Your task to perform on an android device: What is the recent news? Image 0: 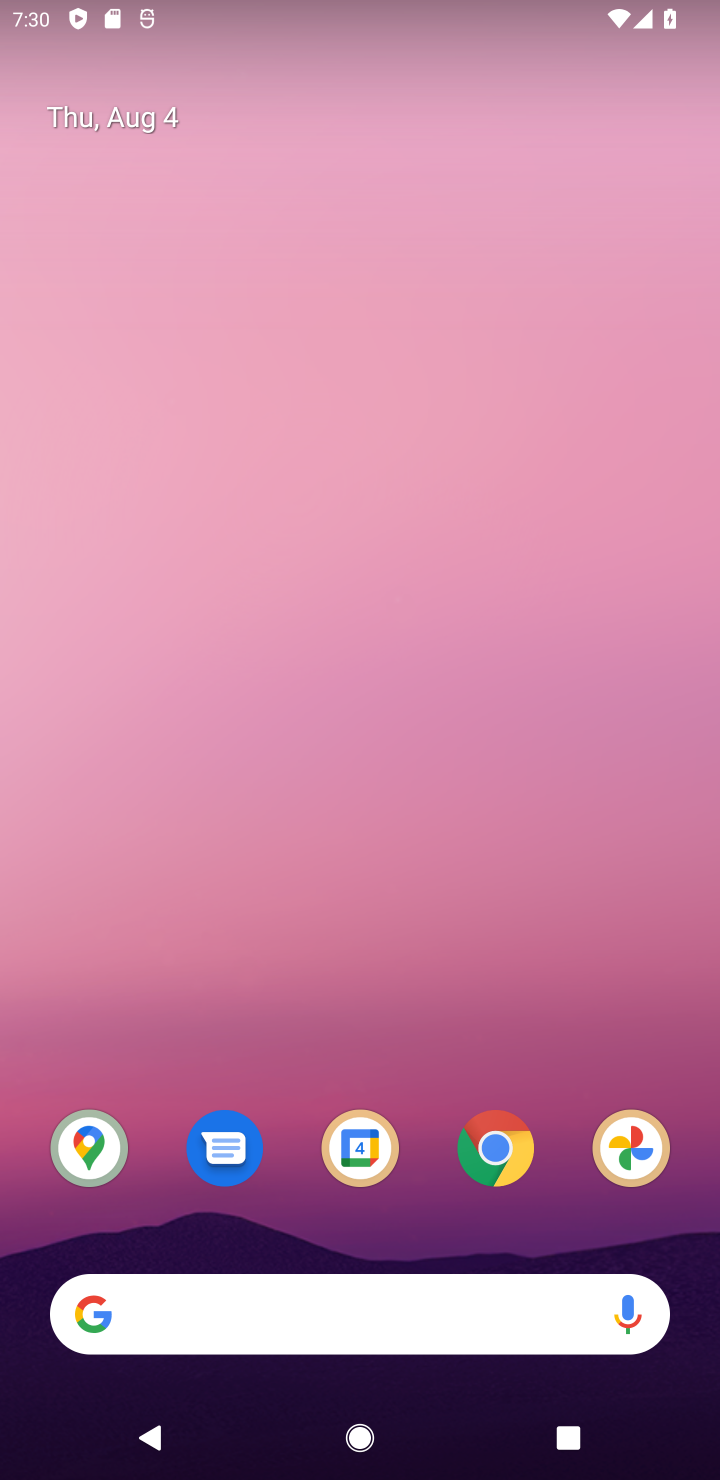
Step 0: click (498, 1128)
Your task to perform on an android device: What is the recent news? Image 1: 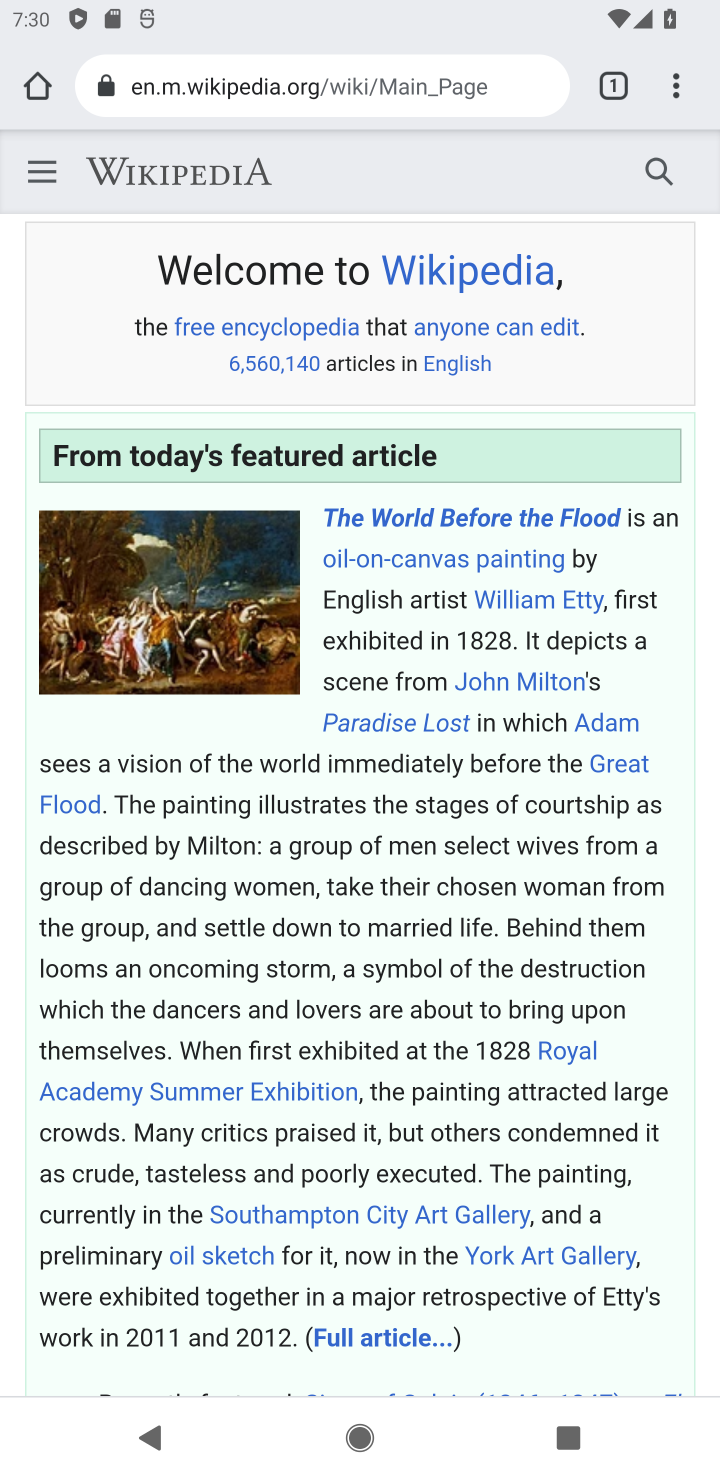
Step 1: click (434, 65)
Your task to perform on an android device: What is the recent news? Image 2: 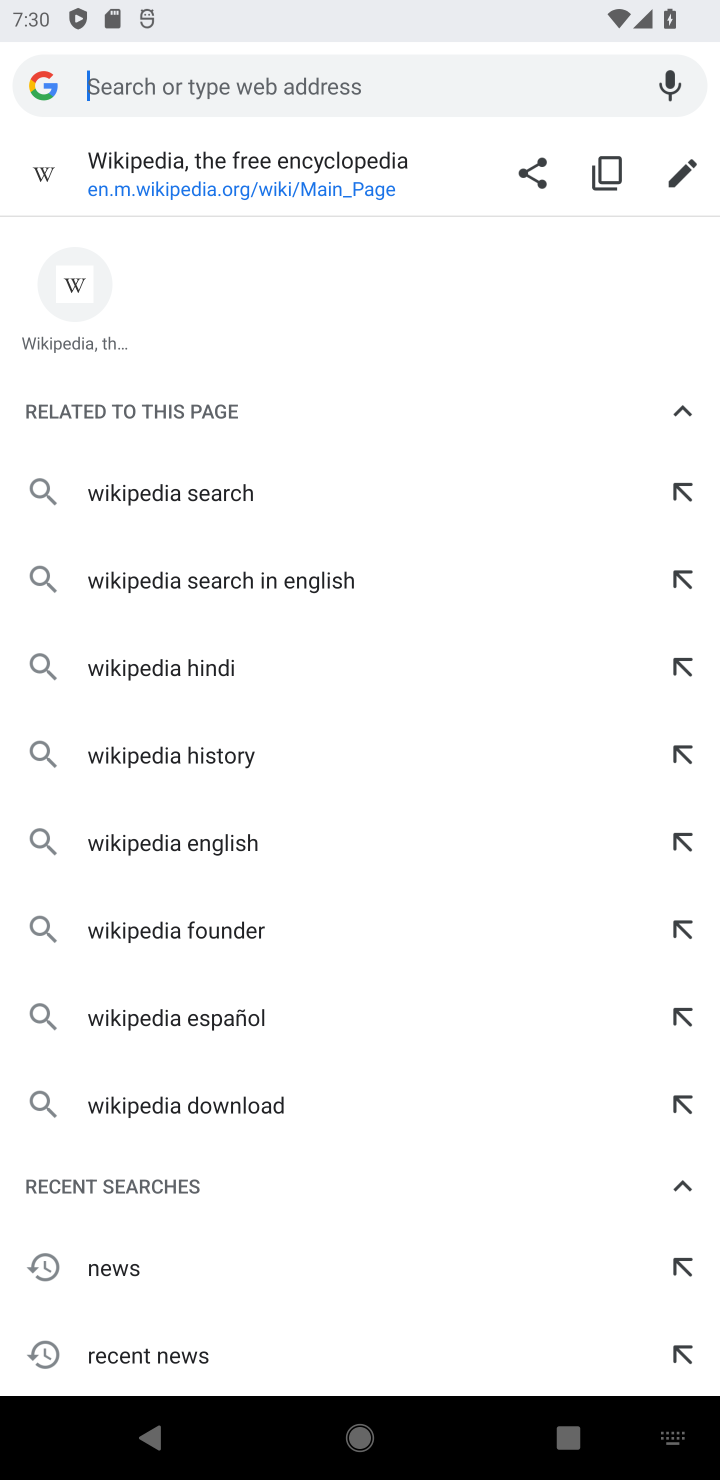
Step 2: type "What is the recent news?"
Your task to perform on an android device: What is the recent news? Image 3: 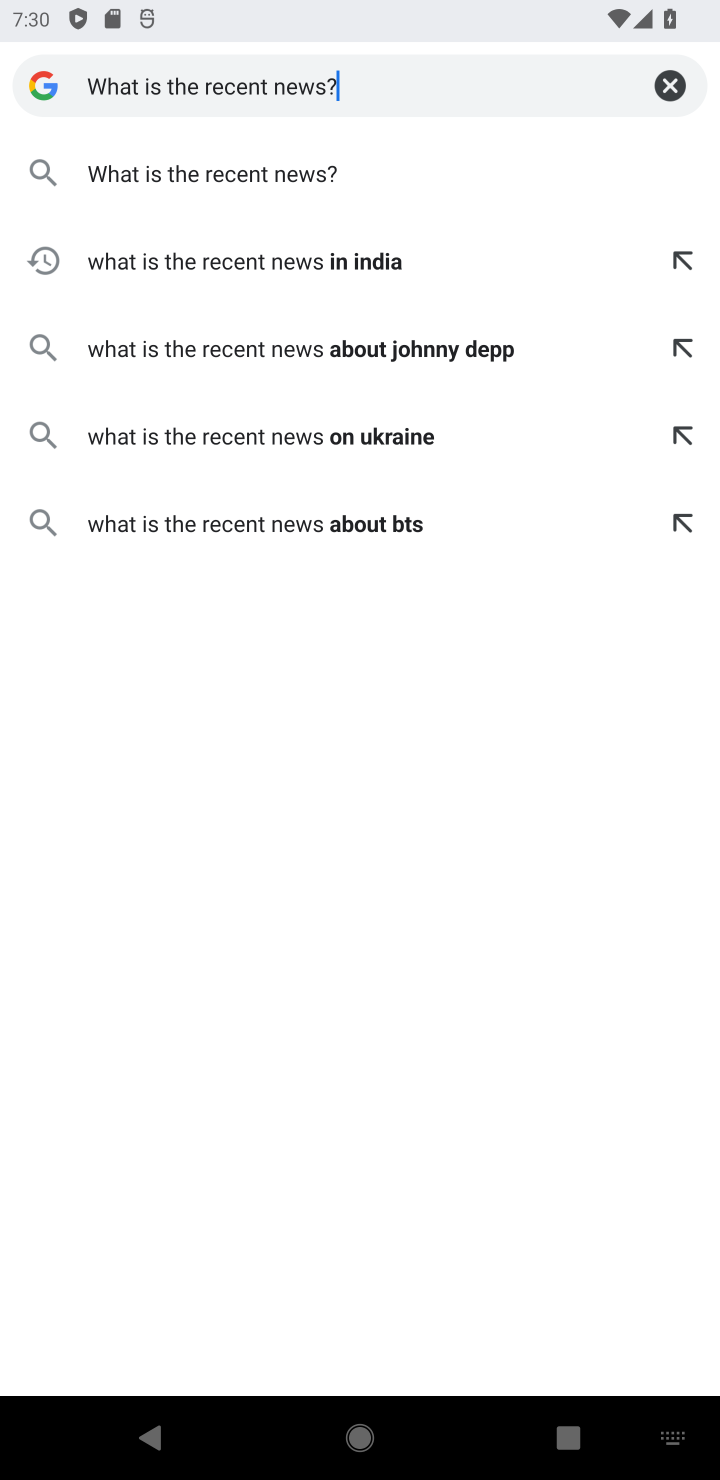
Step 3: click (281, 186)
Your task to perform on an android device: What is the recent news? Image 4: 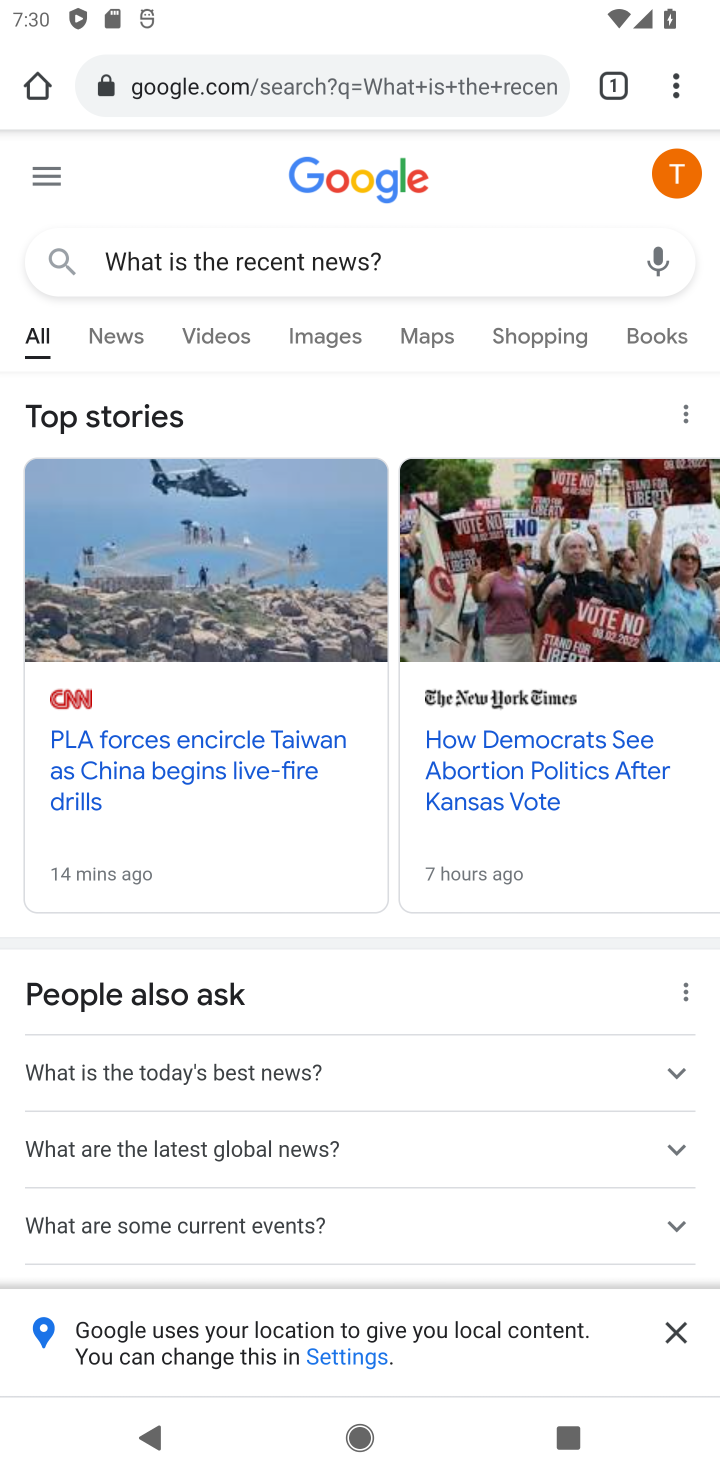
Step 4: task complete